Your task to perform on an android device: Is it going to rain this weekend? Image 0: 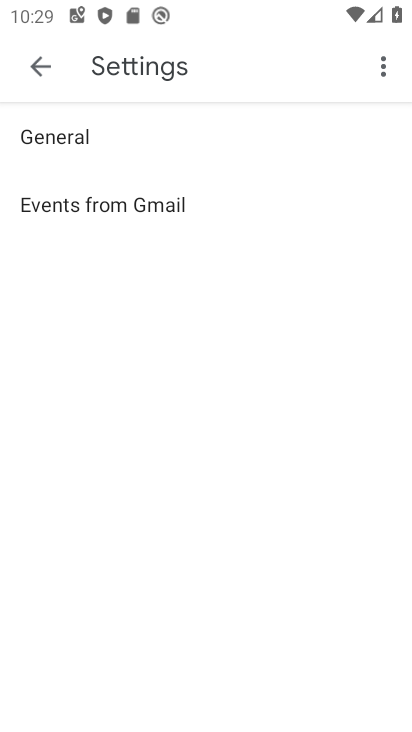
Step 0: press home button
Your task to perform on an android device: Is it going to rain this weekend? Image 1: 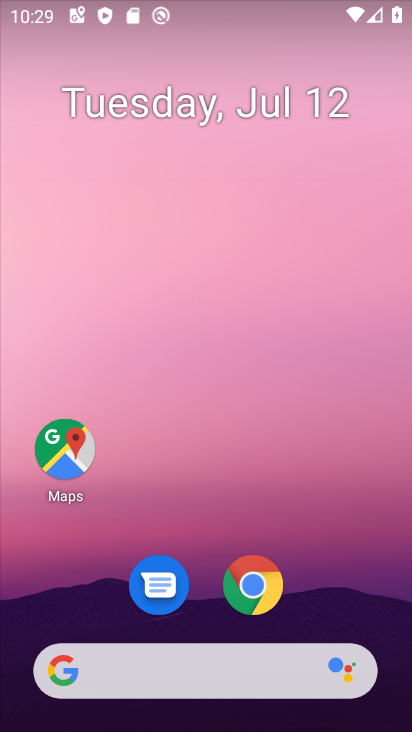
Step 1: drag from (299, 535) to (299, 75)
Your task to perform on an android device: Is it going to rain this weekend? Image 2: 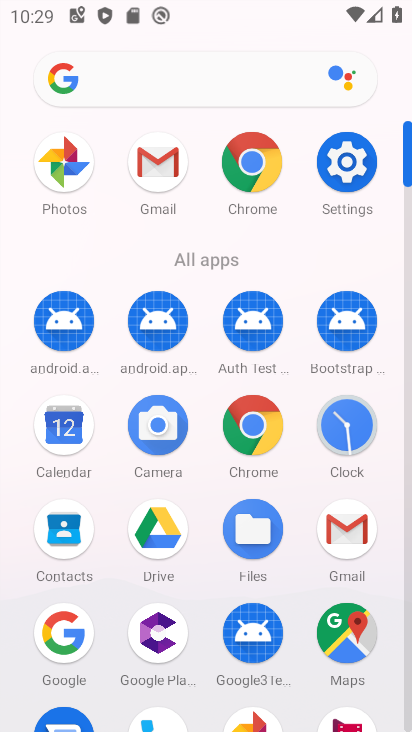
Step 2: click (123, 79)
Your task to perform on an android device: Is it going to rain this weekend? Image 3: 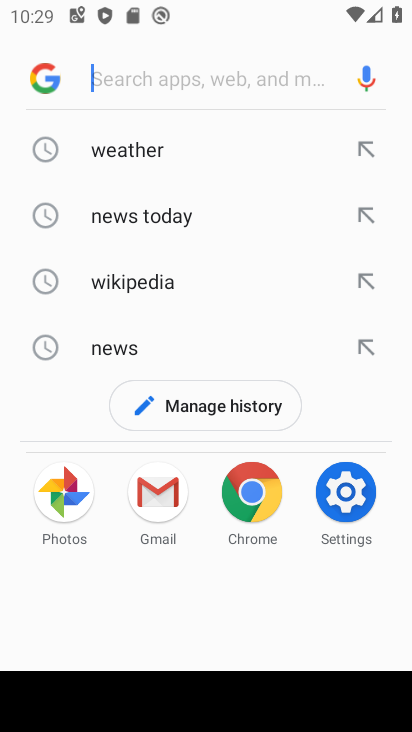
Step 3: click (133, 141)
Your task to perform on an android device: Is it going to rain this weekend? Image 4: 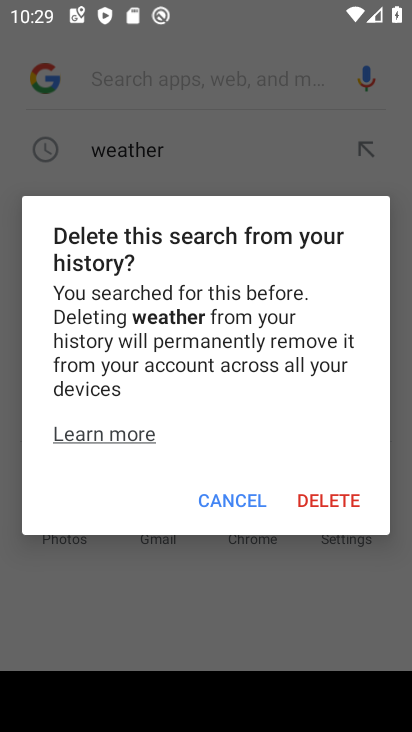
Step 4: click (235, 500)
Your task to perform on an android device: Is it going to rain this weekend? Image 5: 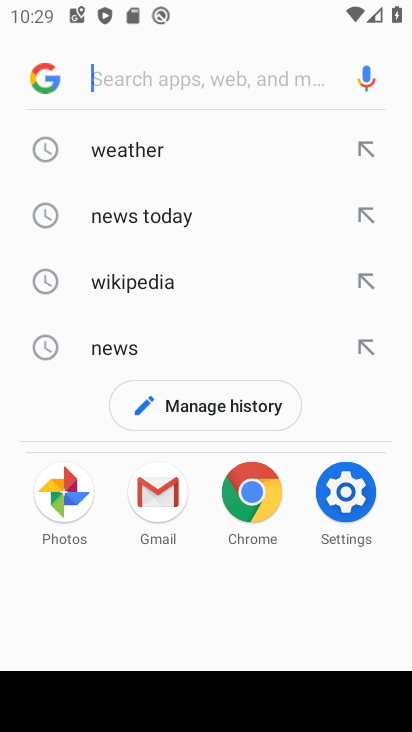
Step 5: click (50, 146)
Your task to perform on an android device: Is it going to rain this weekend? Image 6: 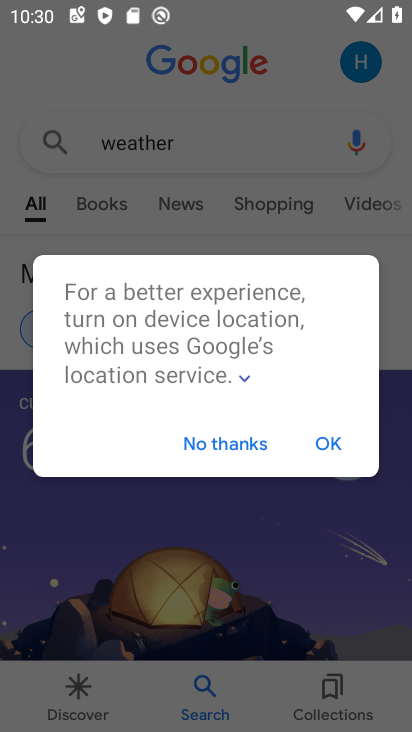
Step 6: click (74, 320)
Your task to perform on an android device: Is it going to rain this weekend? Image 7: 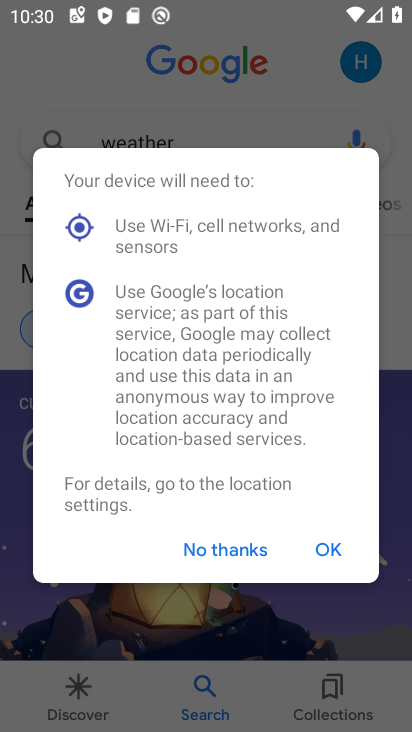
Step 7: click (222, 548)
Your task to perform on an android device: Is it going to rain this weekend? Image 8: 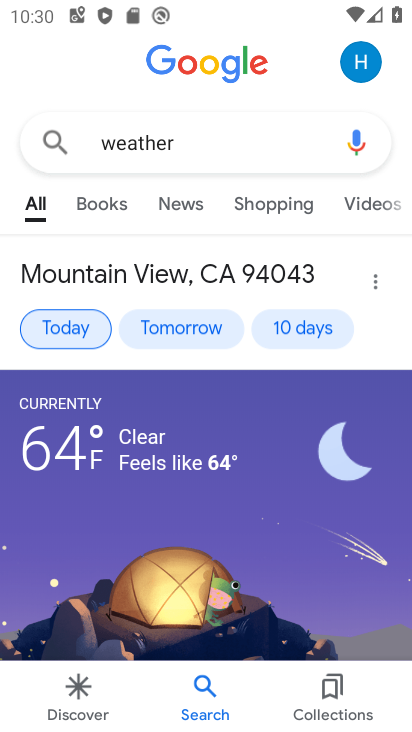
Step 8: click (70, 337)
Your task to perform on an android device: Is it going to rain this weekend? Image 9: 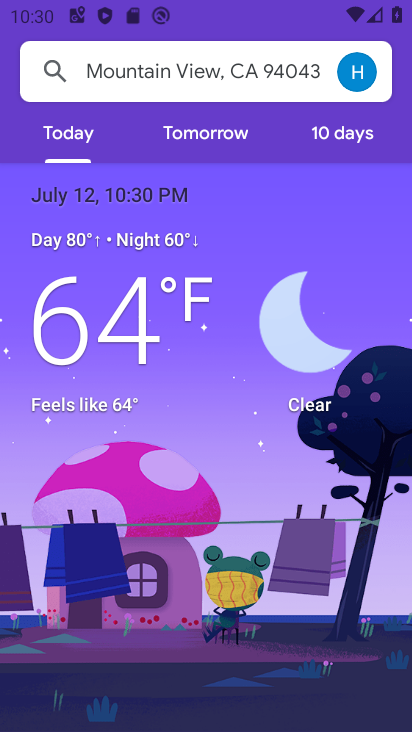
Step 9: click (358, 138)
Your task to perform on an android device: Is it going to rain this weekend? Image 10: 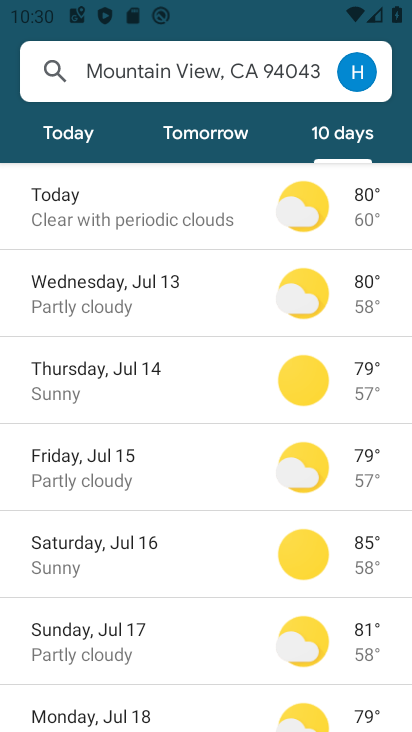
Step 10: click (99, 554)
Your task to perform on an android device: Is it going to rain this weekend? Image 11: 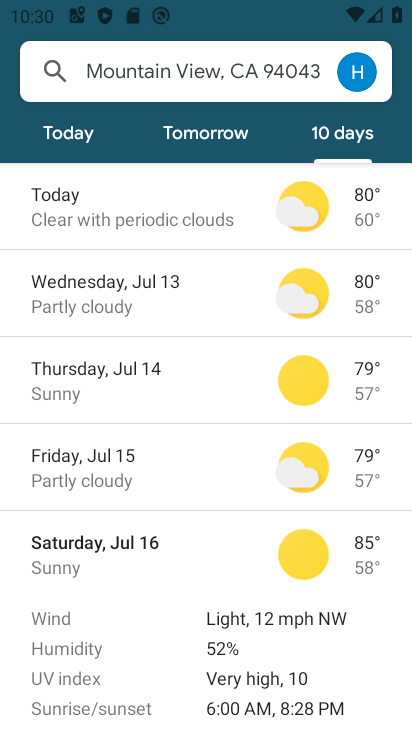
Step 11: task complete